Your task to perform on an android device: clear history in the chrome app Image 0: 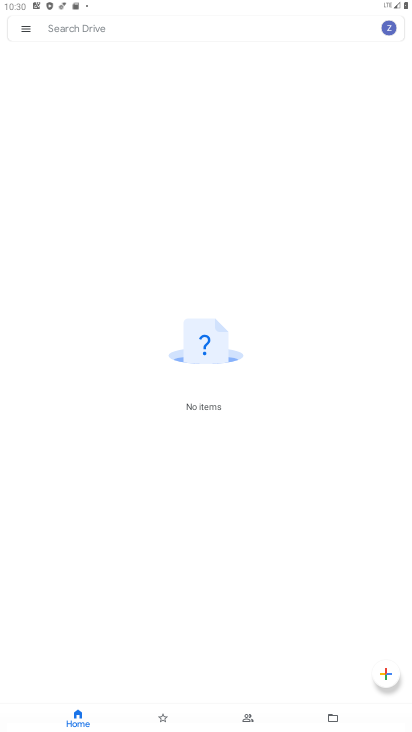
Step 0: press home button
Your task to perform on an android device: clear history in the chrome app Image 1: 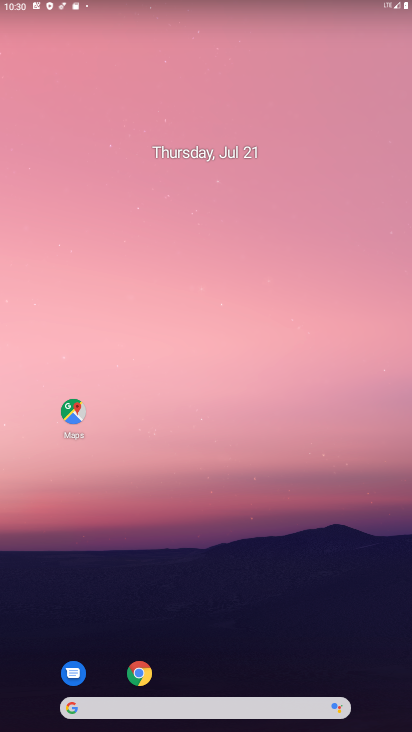
Step 1: click (145, 672)
Your task to perform on an android device: clear history in the chrome app Image 2: 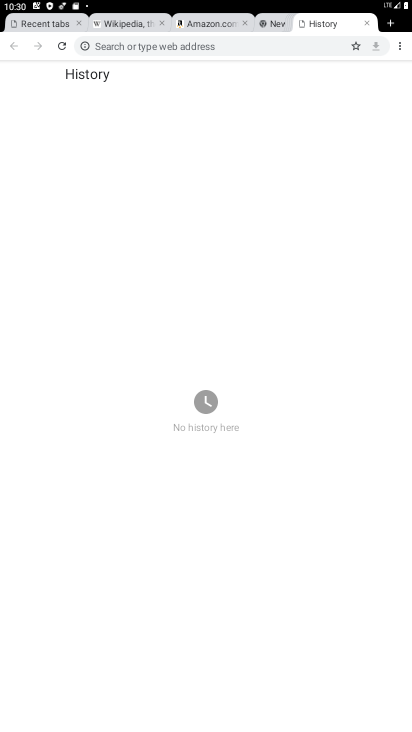
Step 2: click (397, 44)
Your task to perform on an android device: clear history in the chrome app Image 3: 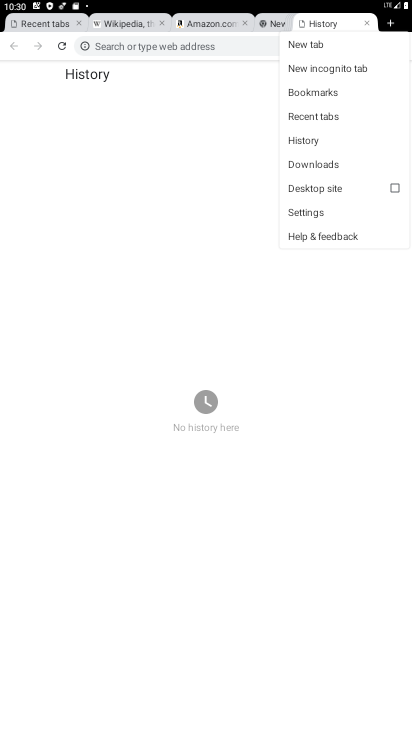
Step 3: click (329, 142)
Your task to perform on an android device: clear history in the chrome app Image 4: 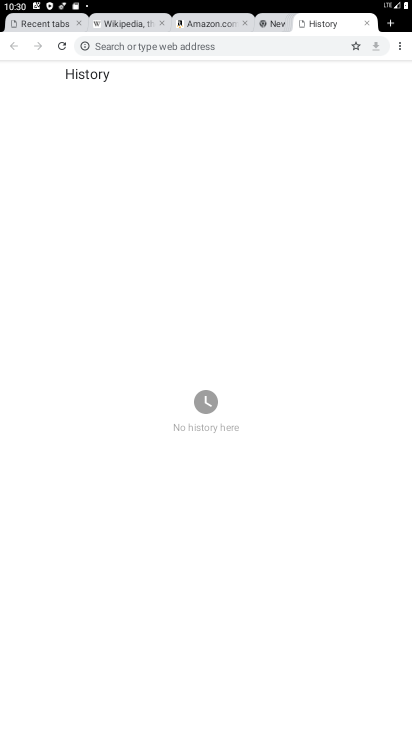
Step 4: task complete